Your task to perform on an android device: Open battery settings Image 0: 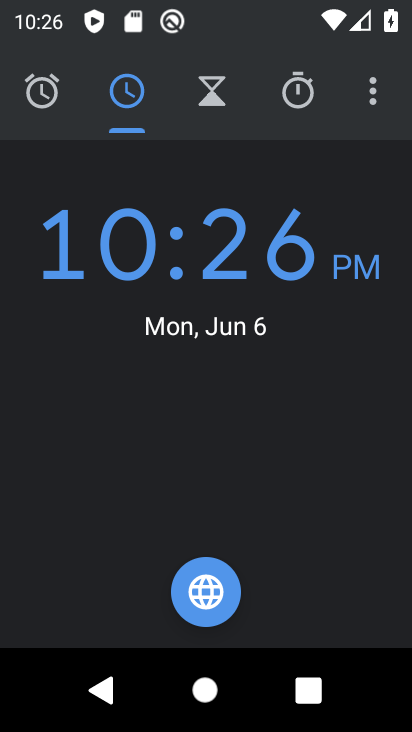
Step 0: press back button
Your task to perform on an android device: Open battery settings Image 1: 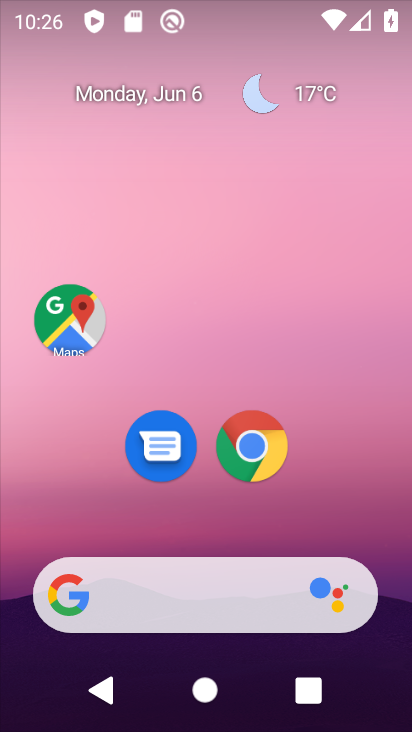
Step 1: drag from (354, 525) to (229, 19)
Your task to perform on an android device: Open battery settings Image 2: 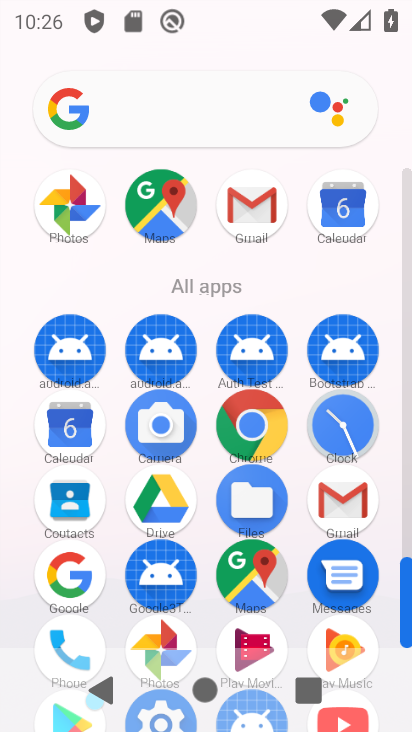
Step 2: drag from (7, 549) to (21, 196)
Your task to perform on an android device: Open battery settings Image 3: 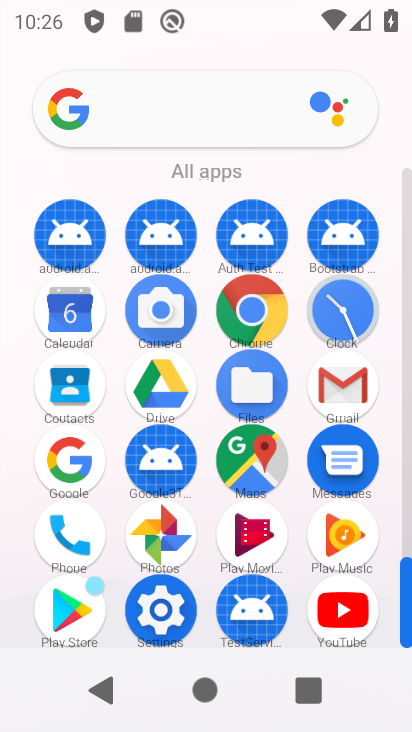
Step 3: click (157, 608)
Your task to perform on an android device: Open battery settings Image 4: 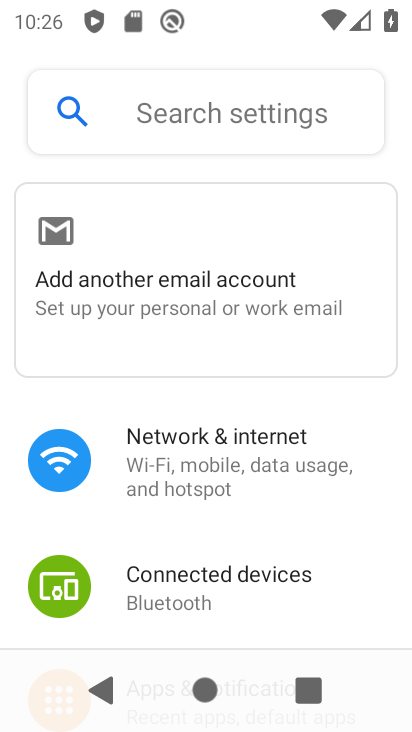
Step 4: drag from (290, 611) to (328, 163)
Your task to perform on an android device: Open battery settings Image 5: 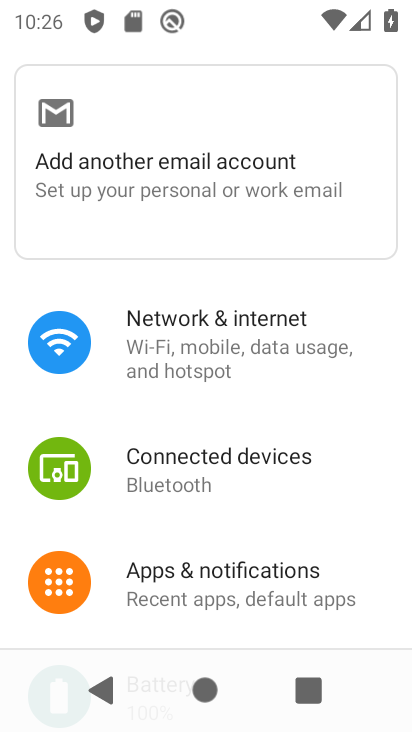
Step 5: drag from (276, 567) to (274, 165)
Your task to perform on an android device: Open battery settings Image 6: 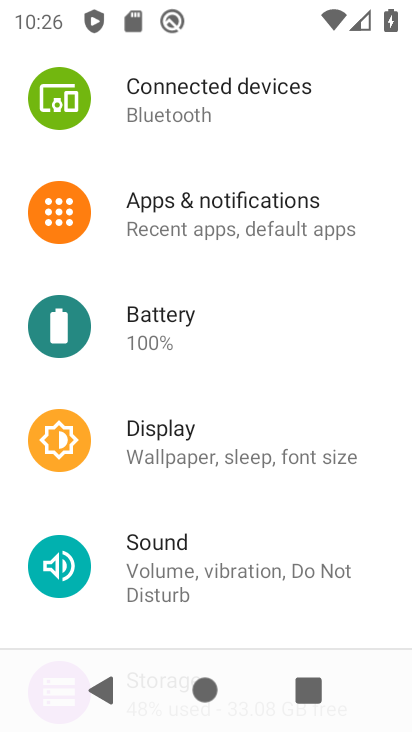
Step 6: click (200, 334)
Your task to perform on an android device: Open battery settings Image 7: 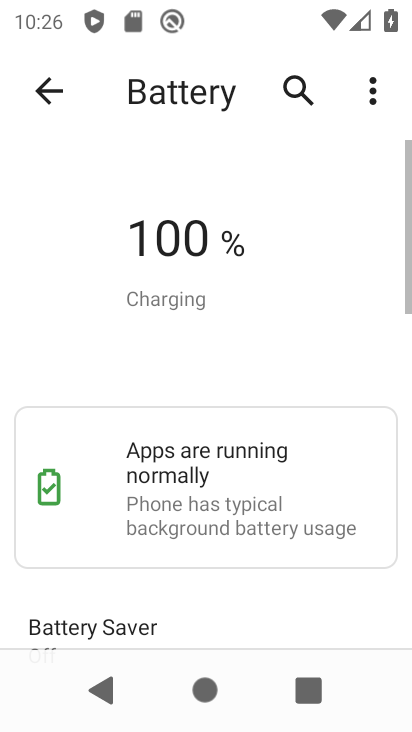
Step 7: task complete